Your task to perform on an android device: Show me productivity apps on the Play Store Image 0: 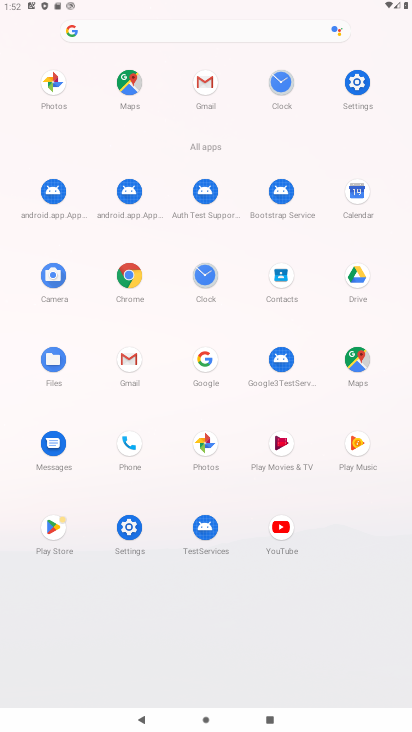
Step 0: press home button
Your task to perform on an android device: Show me productivity apps on the Play Store Image 1: 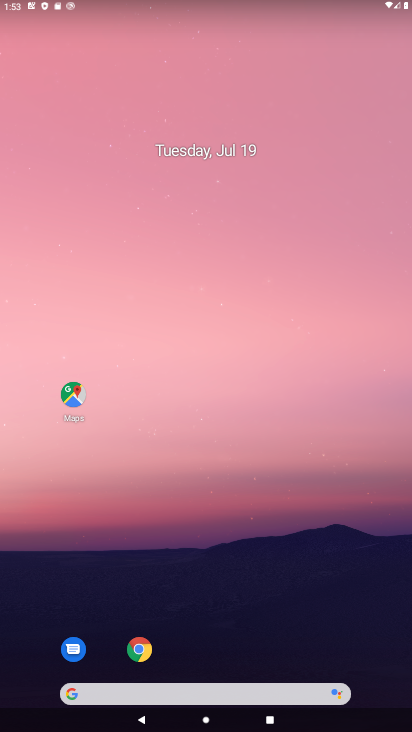
Step 1: drag from (238, 640) to (316, 162)
Your task to perform on an android device: Show me productivity apps on the Play Store Image 2: 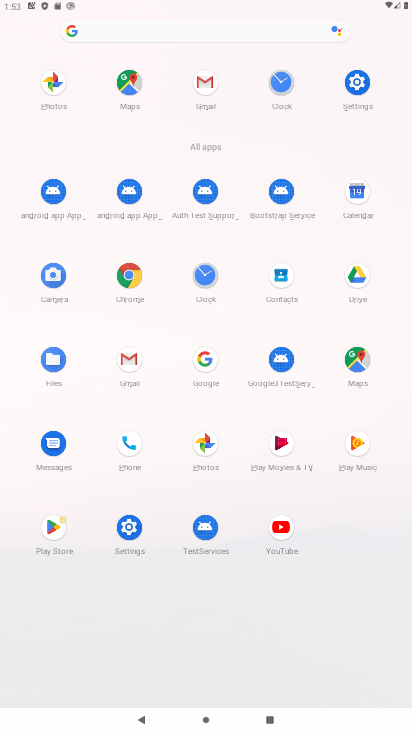
Step 2: click (50, 537)
Your task to perform on an android device: Show me productivity apps on the Play Store Image 3: 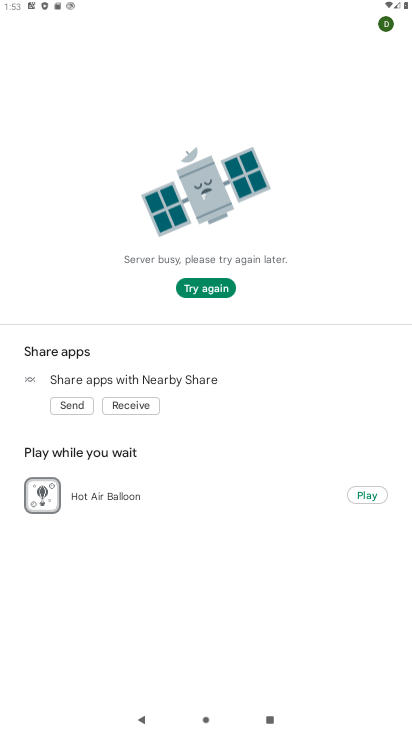
Step 3: task complete